Your task to perform on an android device: Open calendar and show me the second week of next month Image 0: 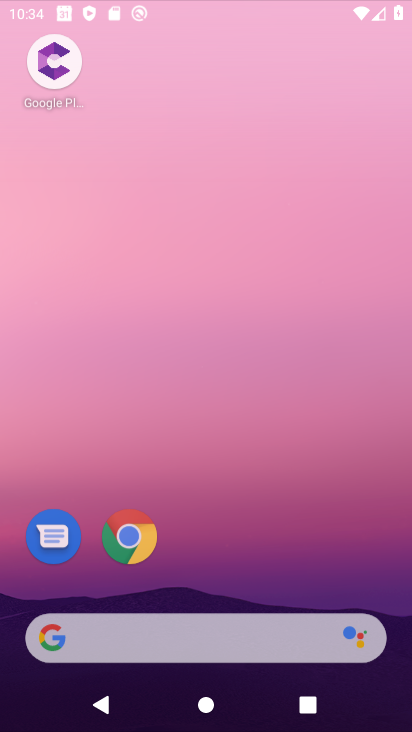
Step 0: click (267, 55)
Your task to perform on an android device: Open calendar and show me the second week of next month Image 1: 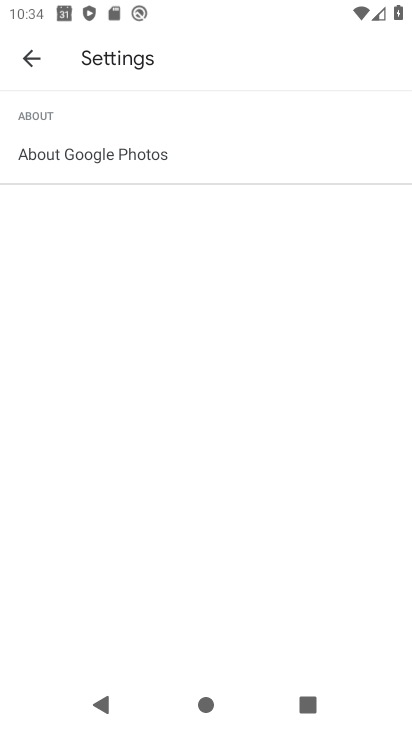
Step 1: press home button
Your task to perform on an android device: Open calendar and show me the second week of next month Image 2: 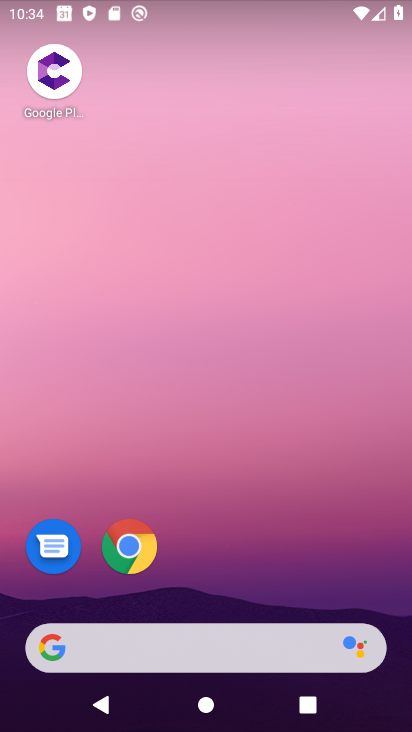
Step 2: drag from (307, 555) to (197, 36)
Your task to perform on an android device: Open calendar and show me the second week of next month Image 3: 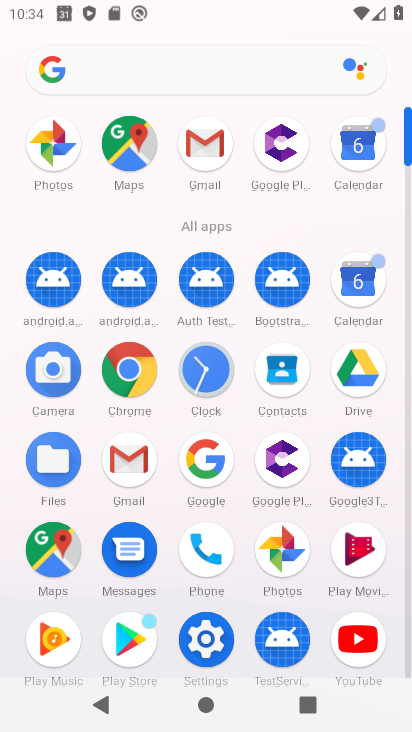
Step 3: click (353, 282)
Your task to perform on an android device: Open calendar and show me the second week of next month Image 4: 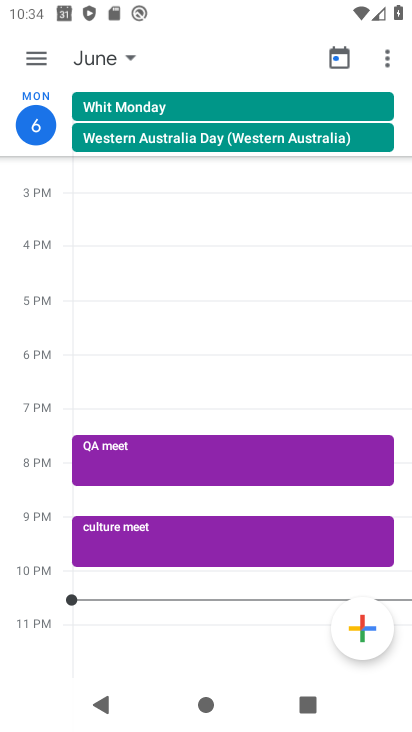
Step 4: click (99, 51)
Your task to perform on an android device: Open calendar and show me the second week of next month Image 5: 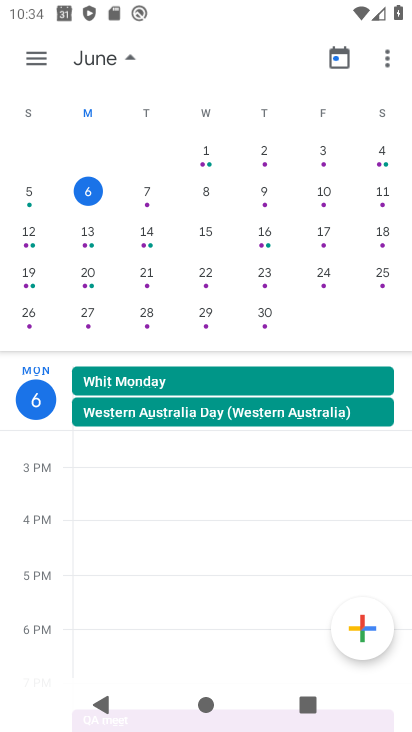
Step 5: drag from (382, 255) to (20, 240)
Your task to perform on an android device: Open calendar and show me the second week of next month Image 6: 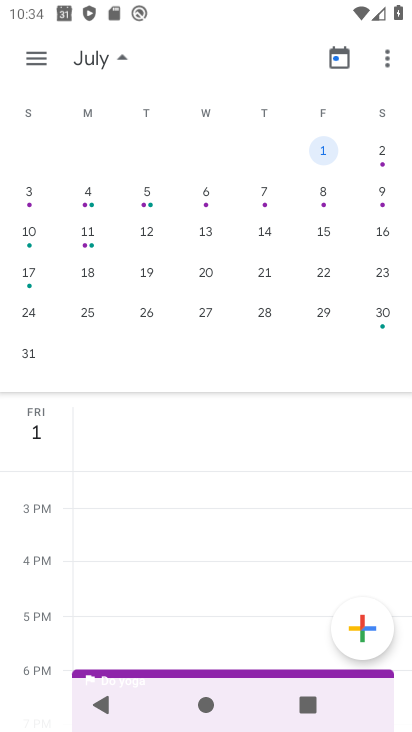
Step 6: click (33, 224)
Your task to perform on an android device: Open calendar and show me the second week of next month Image 7: 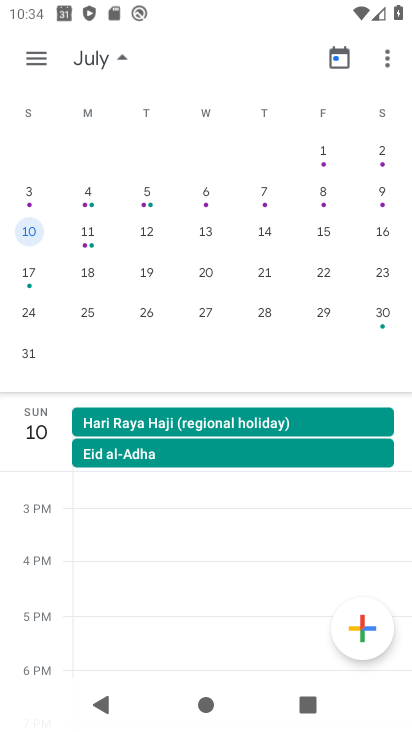
Step 7: click (38, 34)
Your task to perform on an android device: Open calendar and show me the second week of next month Image 8: 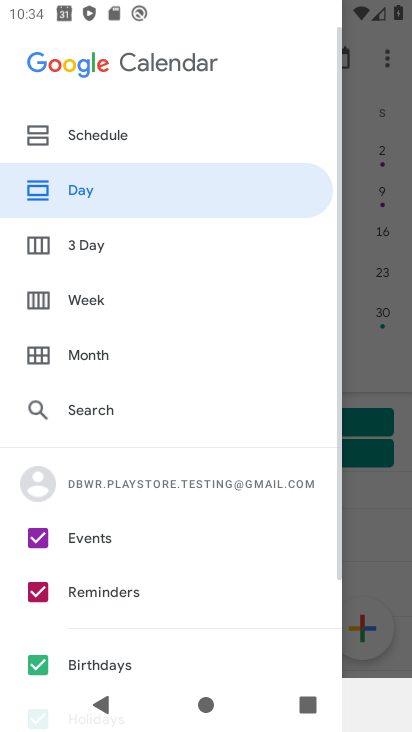
Step 8: click (67, 297)
Your task to perform on an android device: Open calendar and show me the second week of next month Image 9: 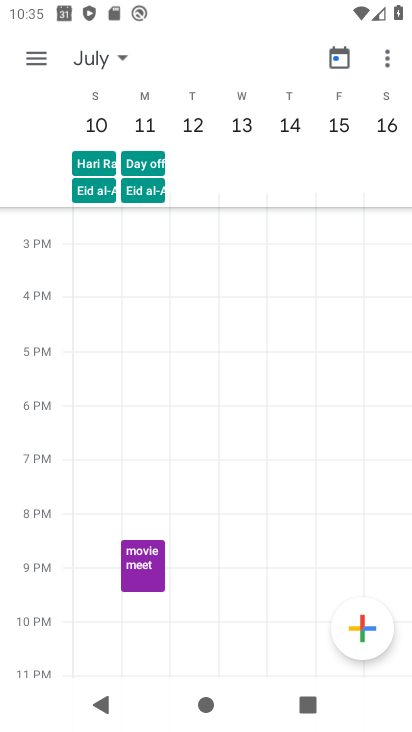
Step 9: task complete